Your task to perform on an android device: open a bookmark in the chrome app Image 0: 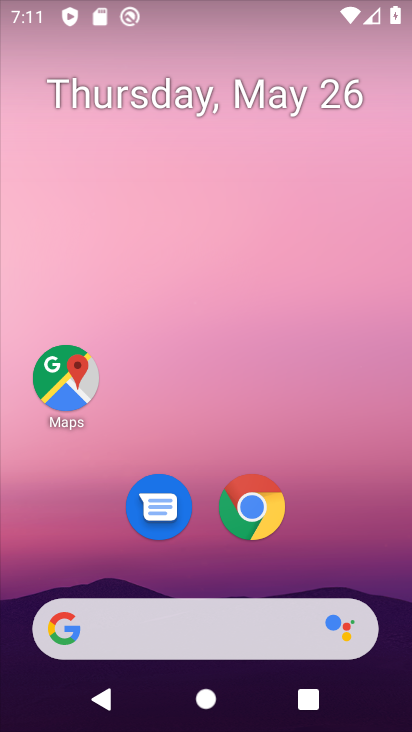
Step 0: drag from (319, 514) to (306, 126)
Your task to perform on an android device: open a bookmark in the chrome app Image 1: 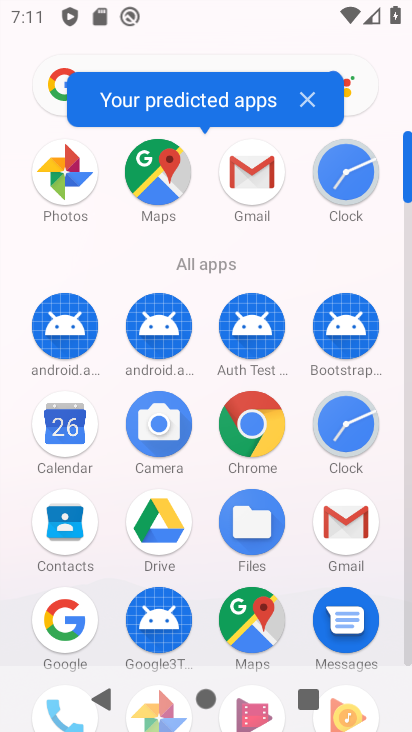
Step 1: click (257, 427)
Your task to perform on an android device: open a bookmark in the chrome app Image 2: 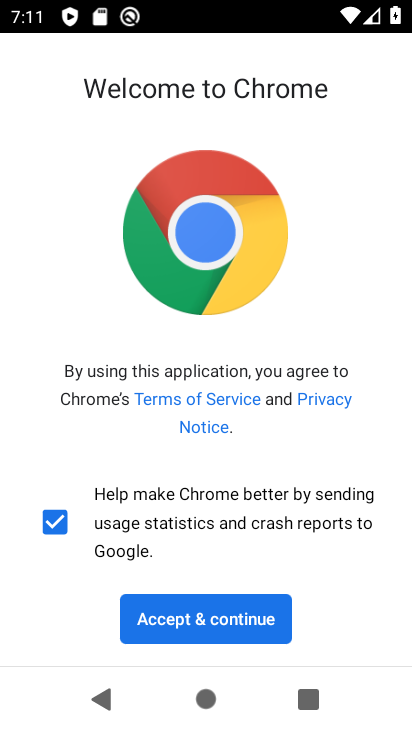
Step 2: click (182, 639)
Your task to perform on an android device: open a bookmark in the chrome app Image 3: 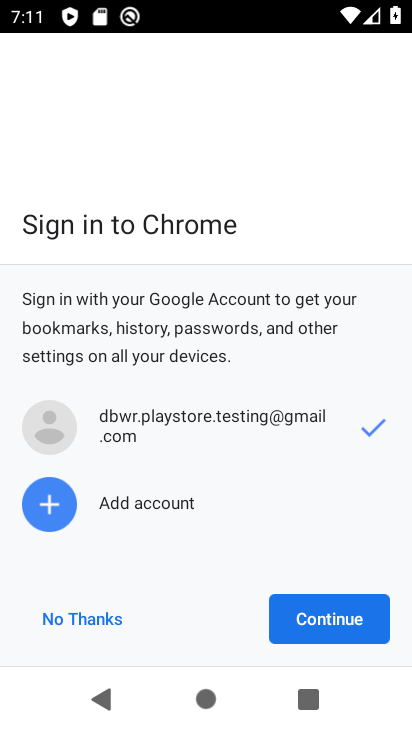
Step 3: click (320, 632)
Your task to perform on an android device: open a bookmark in the chrome app Image 4: 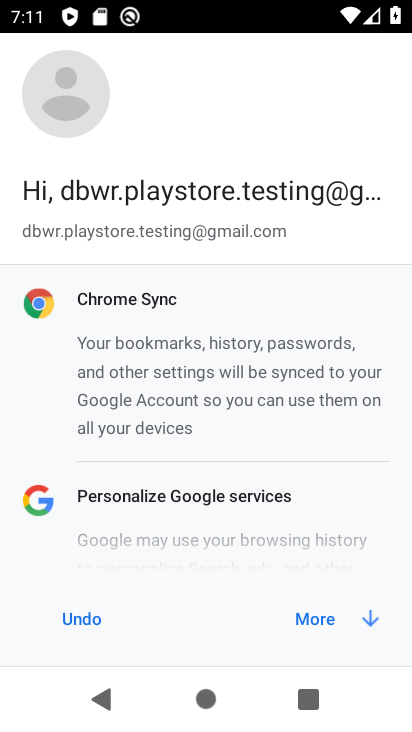
Step 4: click (320, 632)
Your task to perform on an android device: open a bookmark in the chrome app Image 5: 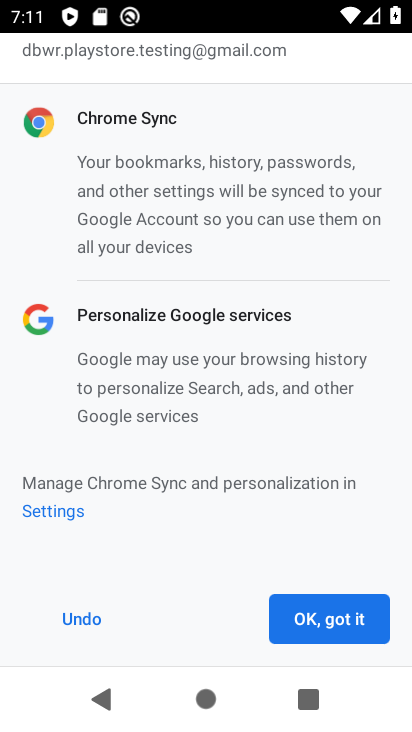
Step 5: click (320, 632)
Your task to perform on an android device: open a bookmark in the chrome app Image 6: 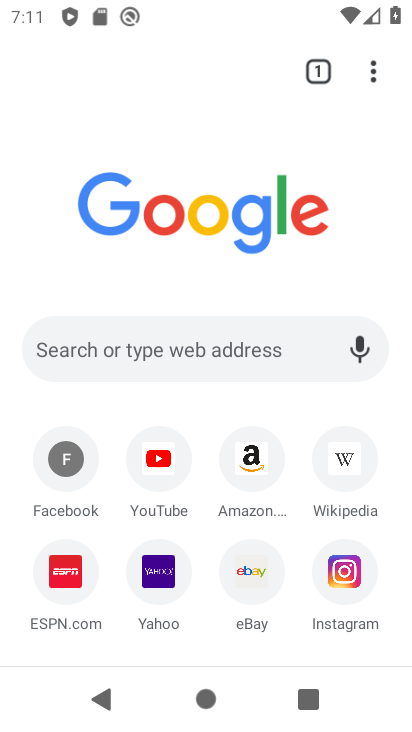
Step 6: click (372, 68)
Your task to perform on an android device: open a bookmark in the chrome app Image 7: 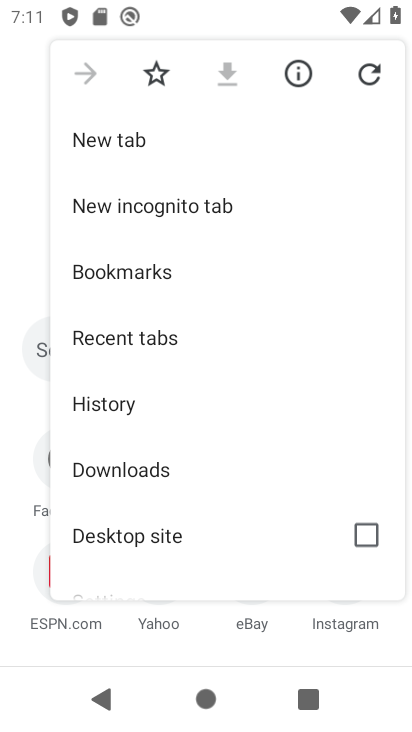
Step 7: click (127, 272)
Your task to perform on an android device: open a bookmark in the chrome app Image 8: 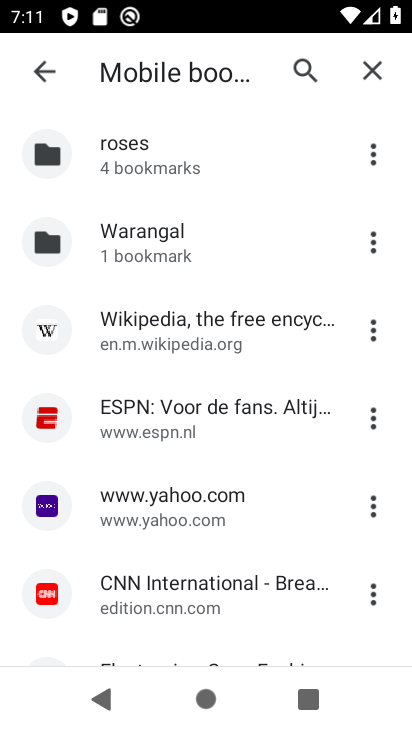
Step 8: task complete